Your task to perform on an android device: Go to Wikipedia Image 0: 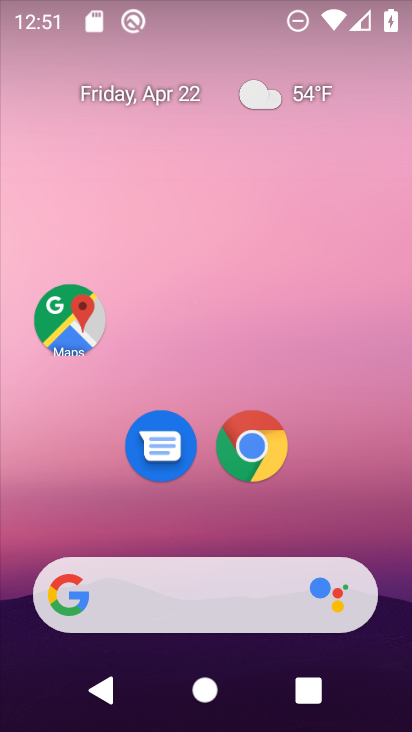
Step 0: click (259, 440)
Your task to perform on an android device: Go to Wikipedia Image 1: 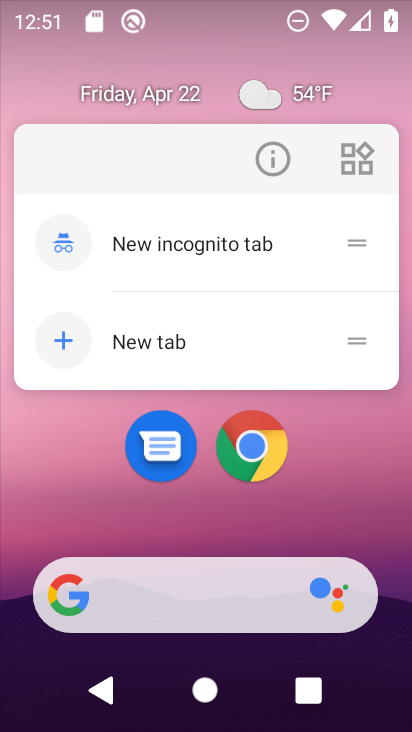
Step 1: click (259, 440)
Your task to perform on an android device: Go to Wikipedia Image 2: 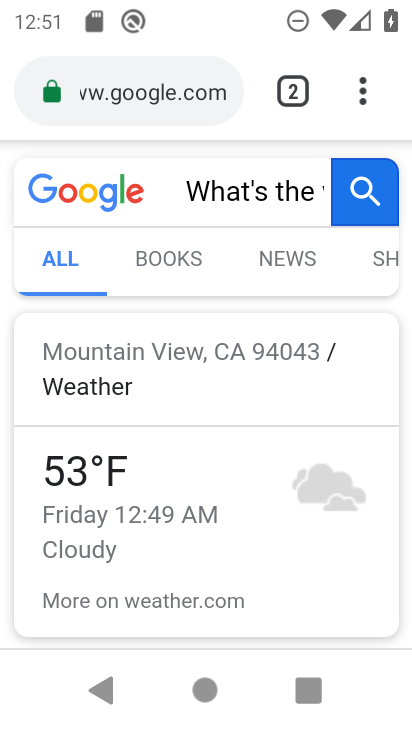
Step 2: click (294, 101)
Your task to perform on an android device: Go to Wikipedia Image 3: 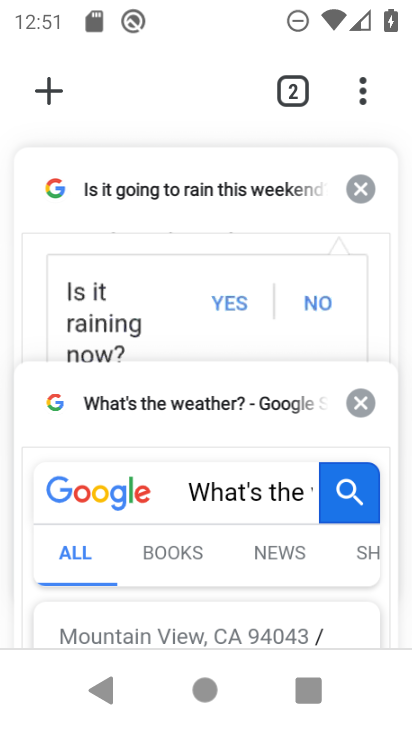
Step 3: click (51, 100)
Your task to perform on an android device: Go to Wikipedia Image 4: 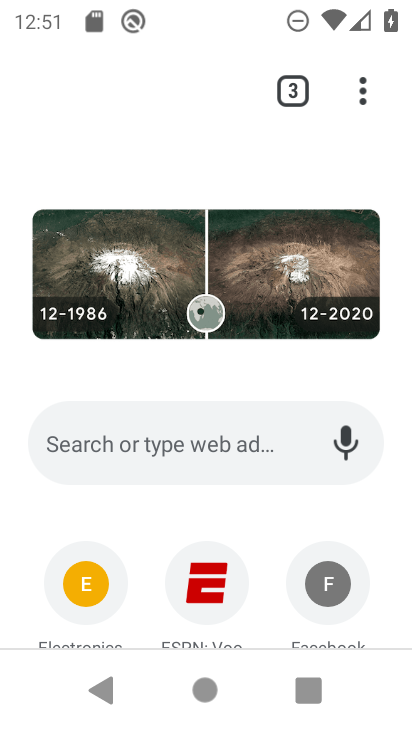
Step 4: drag from (394, 502) to (383, 291)
Your task to perform on an android device: Go to Wikipedia Image 5: 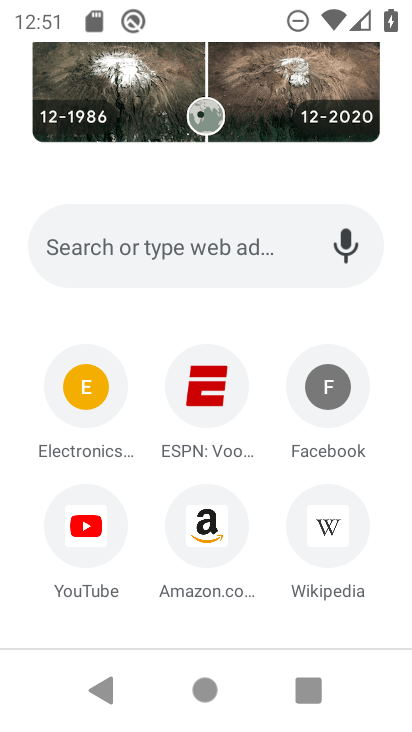
Step 5: click (333, 532)
Your task to perform on an android device: Go to Wikipedia Image 6: 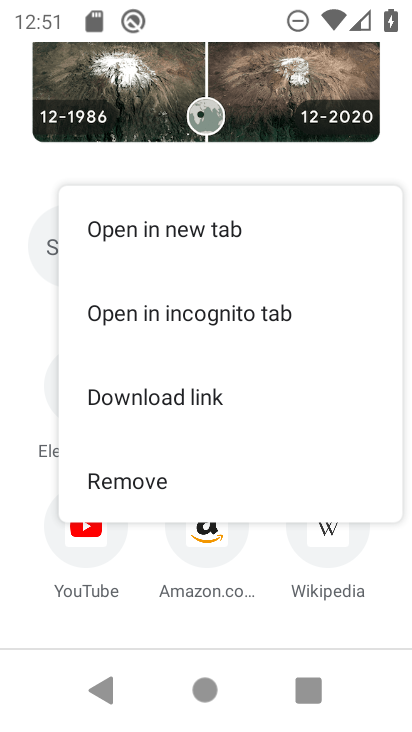
Step 6: click (333, 532)
Your task to perform on an android device: Go to Wikipedia Image 7: 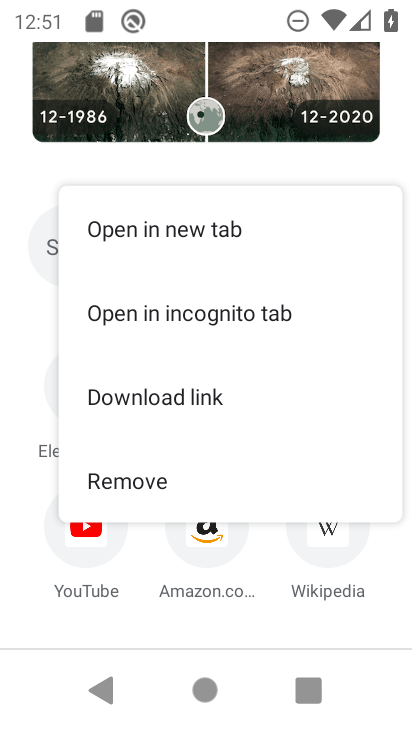
Step 7: click (386, 595)
Your task to perform on an android device: Go to Wikipedia Image 8: 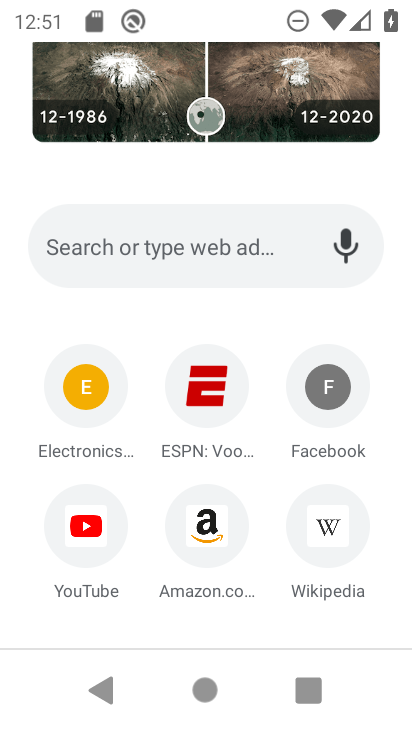
Step 8: click (338, 562)
Your task to perform on an android device: Go to Wikipedia Image 9: 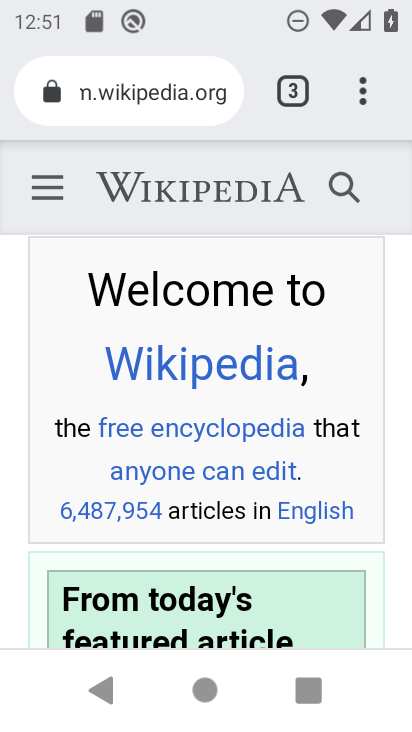
Step 9: task complete